Your task to perform on an android device: delete the emails in spam in the gmail app Image 0: 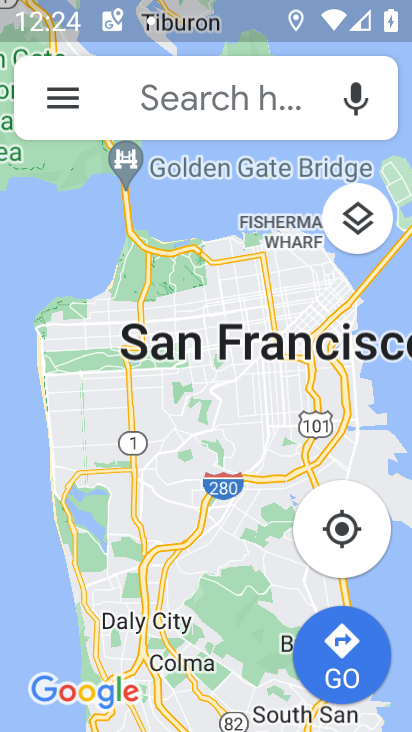
Step 0: press back button
Your task to perform on an android device: delete the emails in spam in the gmail app Image 1: 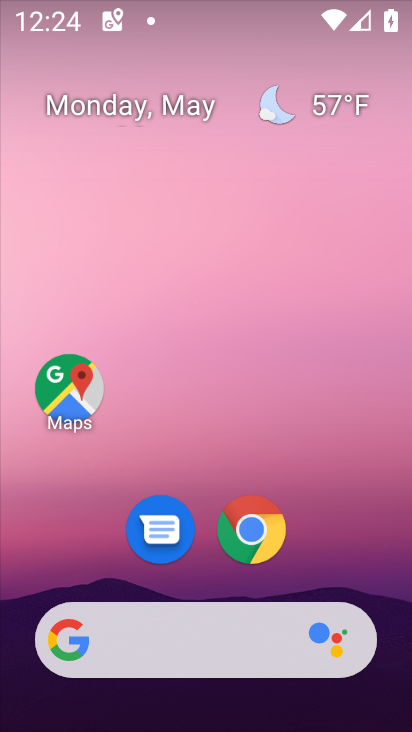
Step 1: drag from (326, 573) to (277, 121)
Your task to perform on an android device: delete the emails in spam in the gmail app Image 2: 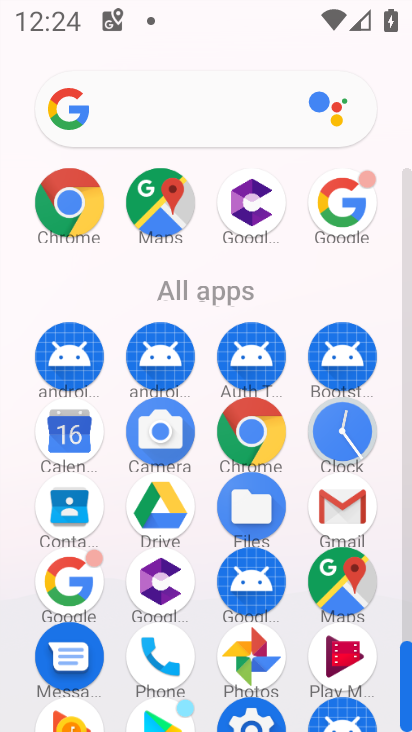
Step 2: click (343, 508)
Your task to perform on an android device: delete the emails in spam in the gmail app Image 3: 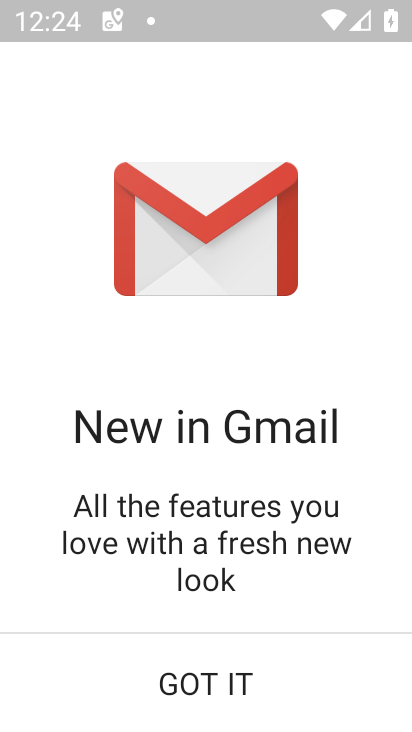
Step 3: click (208, 680)
Your task to perform on an android device: delete the emails in spam in the gmail app Image 4: 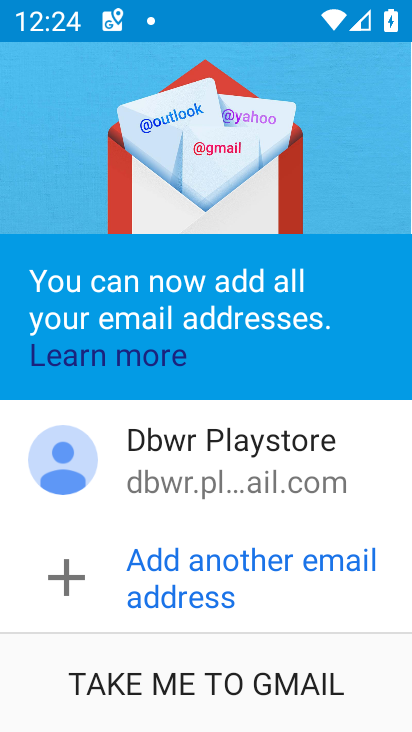
Step 4: click (208, 680)
Your task to perform on an android device: delete the emails in spam in the gmail app Image 5: 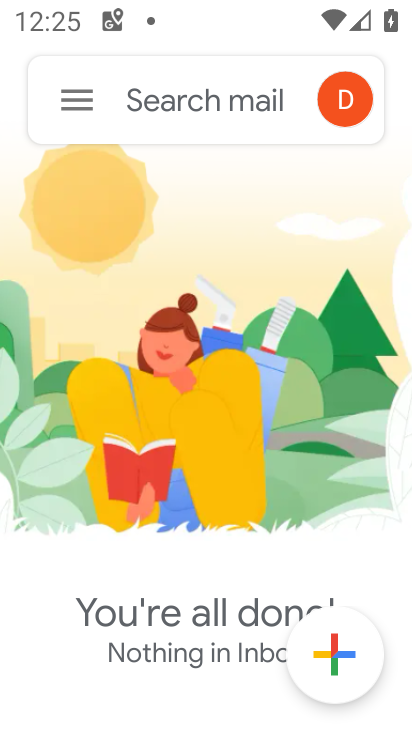
Step 5: click (77, 104)
Your task to perform on an android device: delete the emails in spam in the gmail app Image 6: 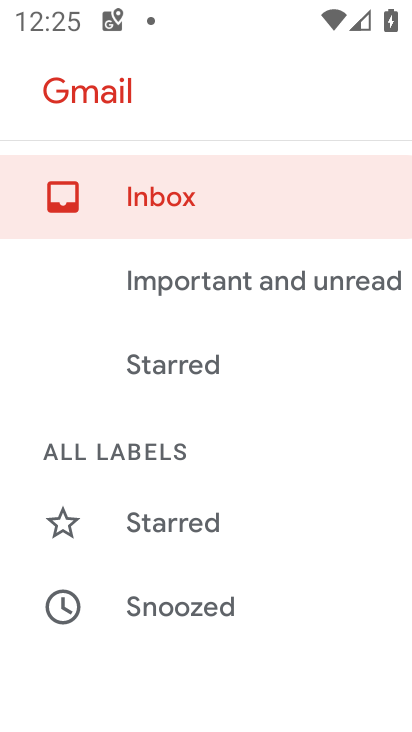
Step 6: drag from (207, 552) to (279, 433)
Your task to perform on an android device: delete the emails in spam in the gmail app Image 7: 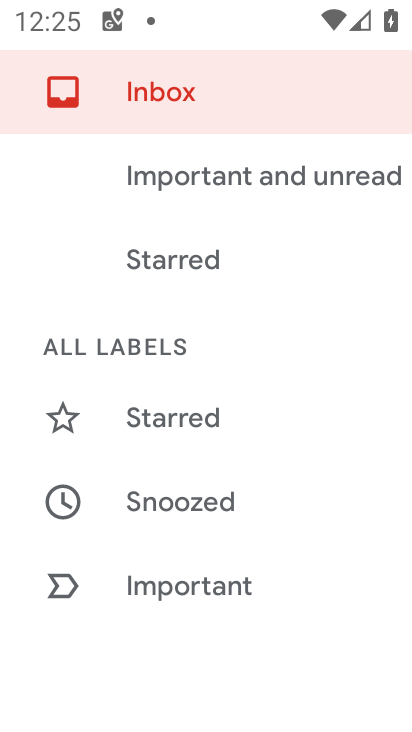
Step 7: drag from (190, 619) to (255, 485)
Your task to perform on an android device: delete the emails in spam in the gmail app Image 8: 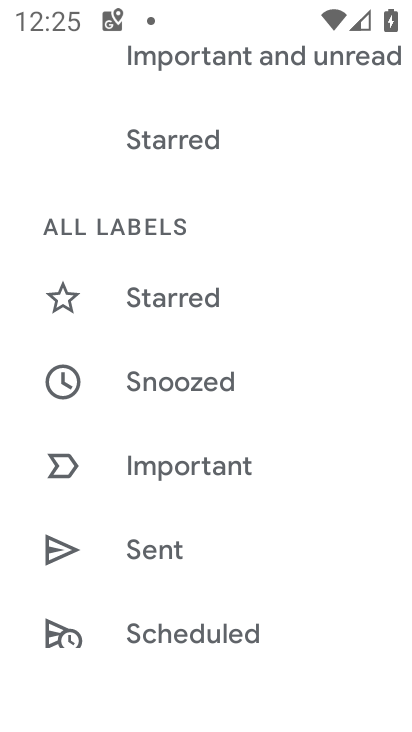
Step 8: drag from (184, 625) to (266, 477)
Your task to perform on an android device: delete the emails in spam in the gmail app Image 9: 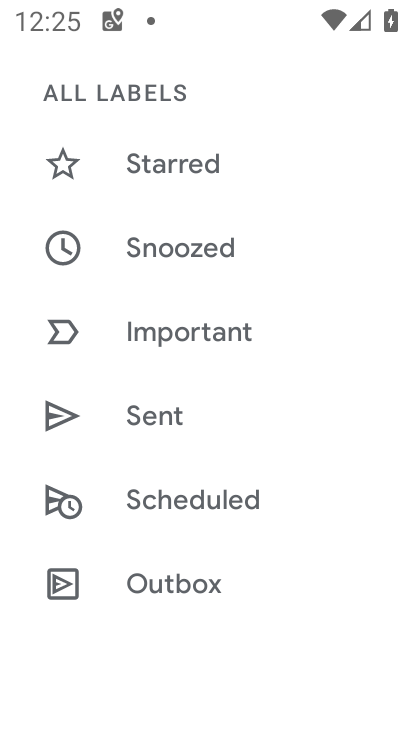
Step 9: drag from (199, 622) to (285, 489)
Your task to perform on an android device: delete the emails in spam in the gmail app Image 10: 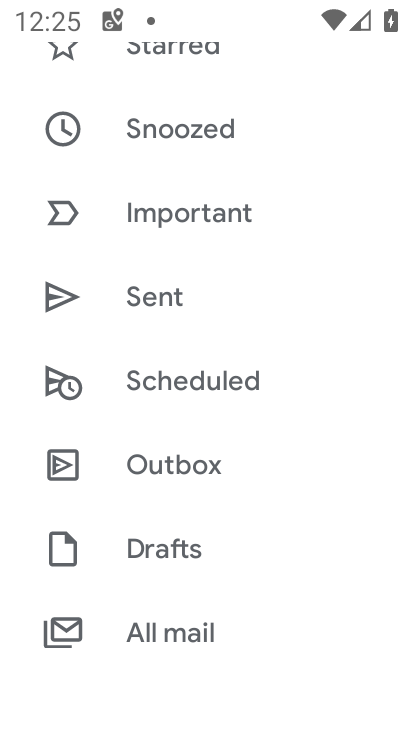
Step 10: drag from (186, 614) to (269, 509)
Your task to perform on an android device: delete the emails in spam in the gmail app Image 11: 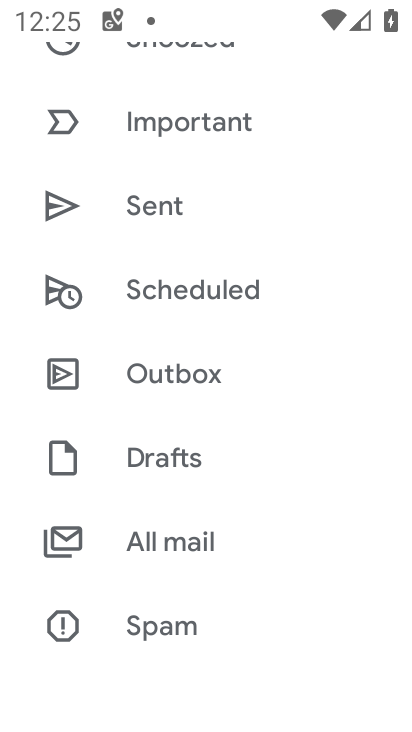
Step 11: click (171, 632)
Your task to perform on an android device: delete the emails in spam in the gmail app Image 12: 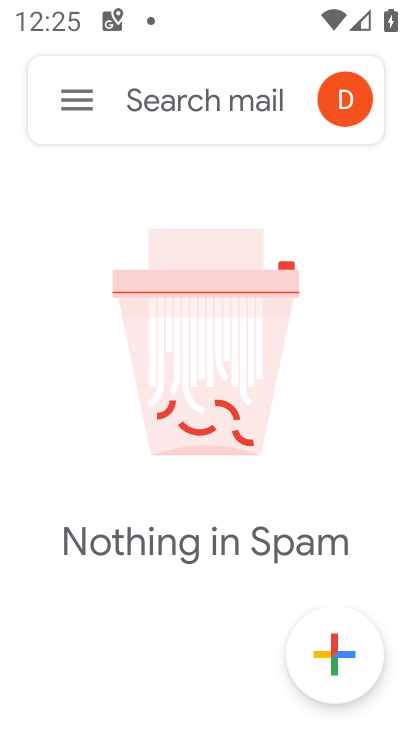
Step 12: task complete